Your task to perform on an android device: move a message to another label in the gmail app Image 0: 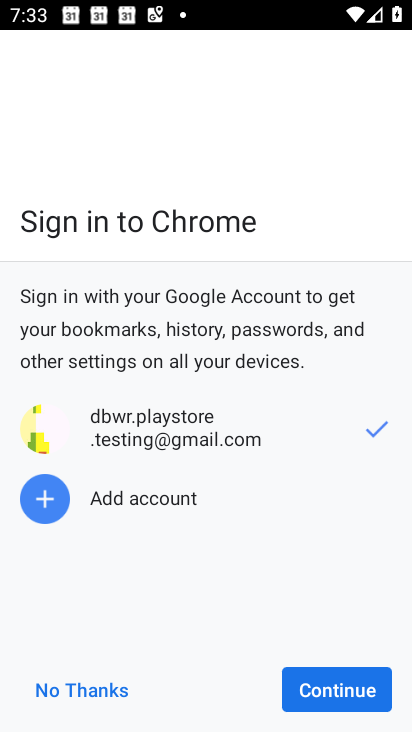
Step 0: press home button
Your task to perform on an android device: move a message to another label in the gmail app Image 1: 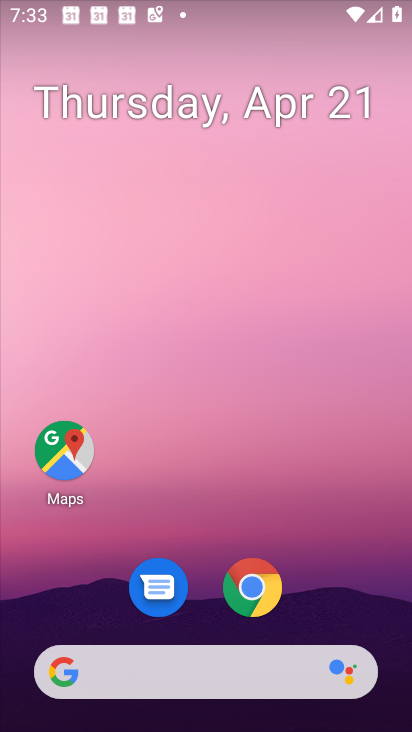
Step 1: click (331, 366)
Your task to perform on an android device: move a message to another label in the gmail app Image 2: 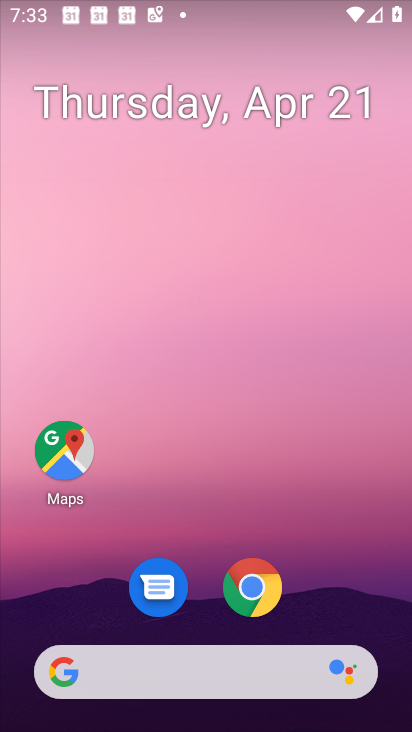
Step 2: drag from (390, 651) to (351, 204)
Your task to perform on an android device: move a message to another label in the gmail app Image 3: 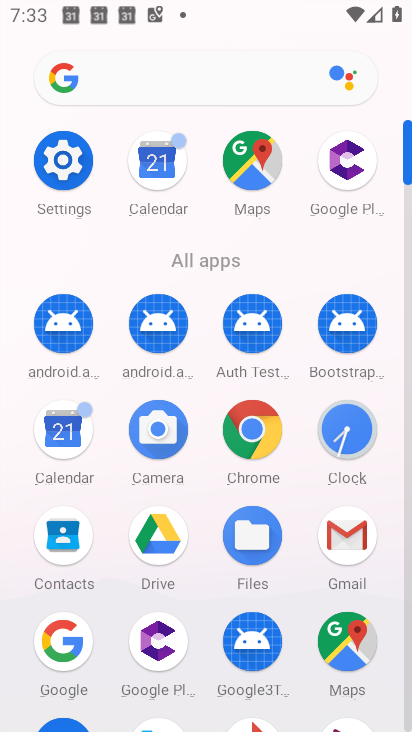
Step 3: click (357, 530)
Your task to perform on an android device: move a message to another label in the gmail app Image 4: 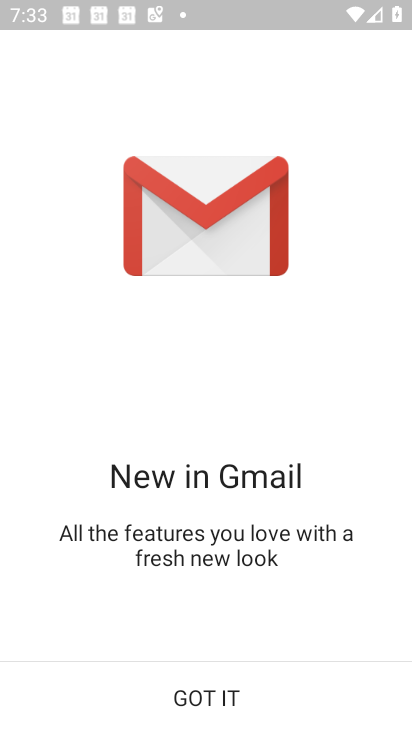
Step 4: click (215, 683)
Your task to perform on an android device: move a message to another label in the gmail app Image 5: 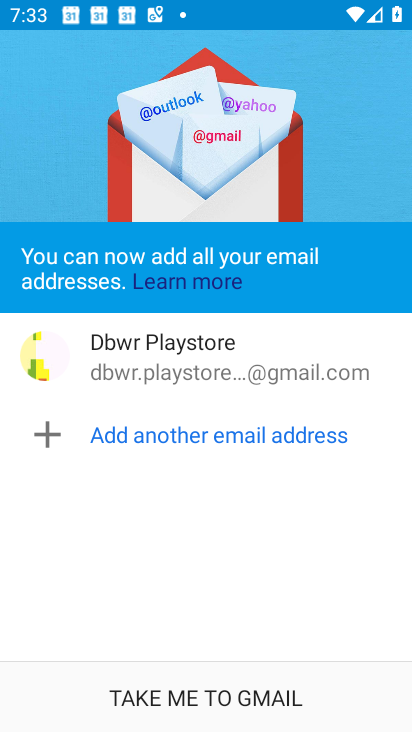
Step 5: click (215, 689)
Your task to perform on an android device: move a message to another label in the gmail app Image 6: 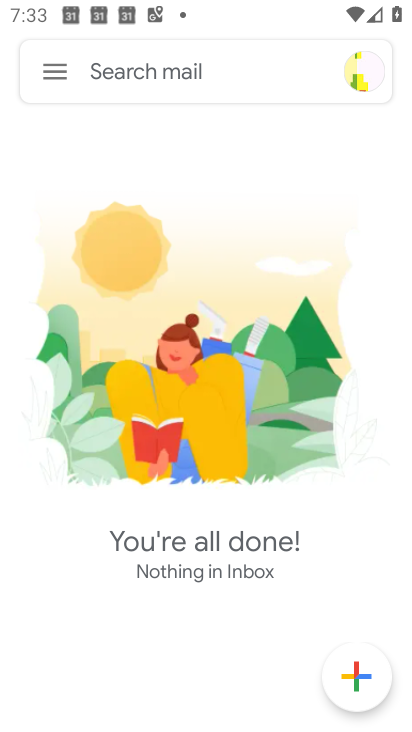
Step 6: task complete